Your task to perform on an android device: visit the assistant section in the google photos Image 0: 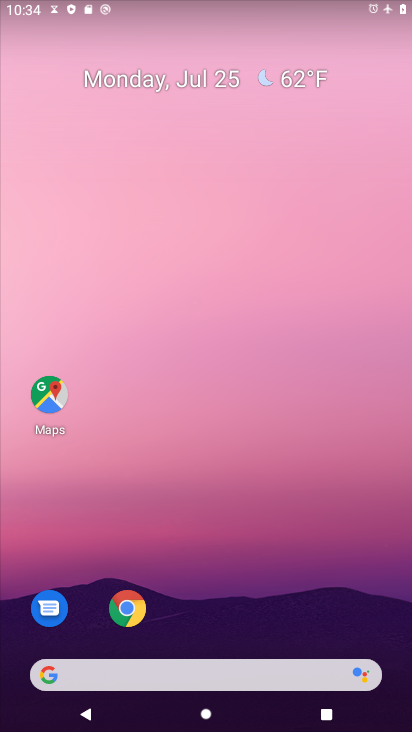
Step 0: drag from (200, 663) to (234, 258)
Your task to perform on an android device: visit the assistant section in the google photos Image 1: 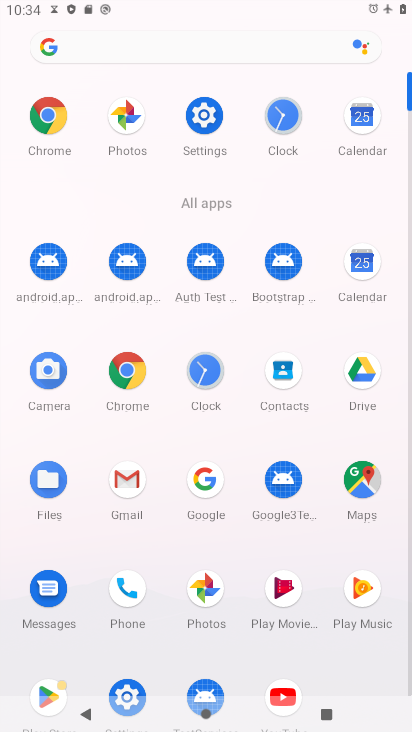
Step 1: click (126, 115)
Your task to perform on an android device: visit the assistant section in the google photos Image 2: 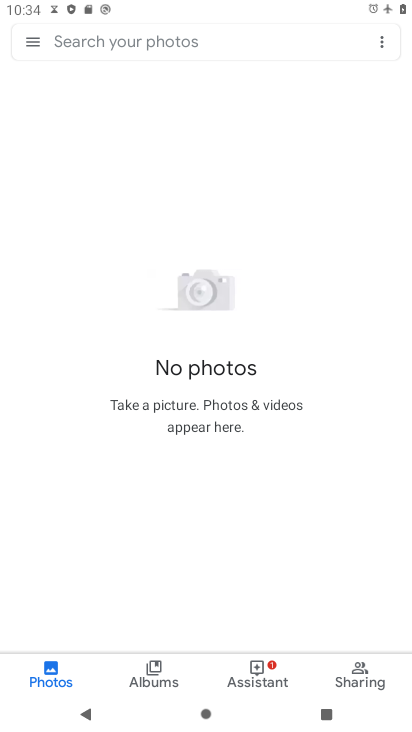
Step 2: click (260, 667)
Your task to perform on an android device: visit the assistant section in the google photos Image 3: 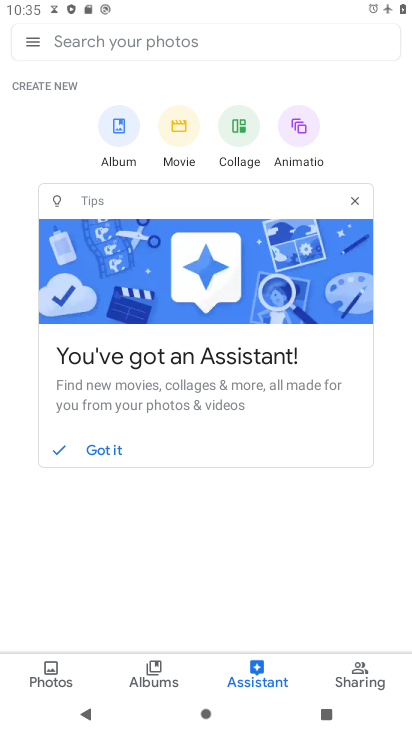
Step 3: task complete